Your task to perform on an android device: Search for seafood restaurants on Google Maps Image 0: 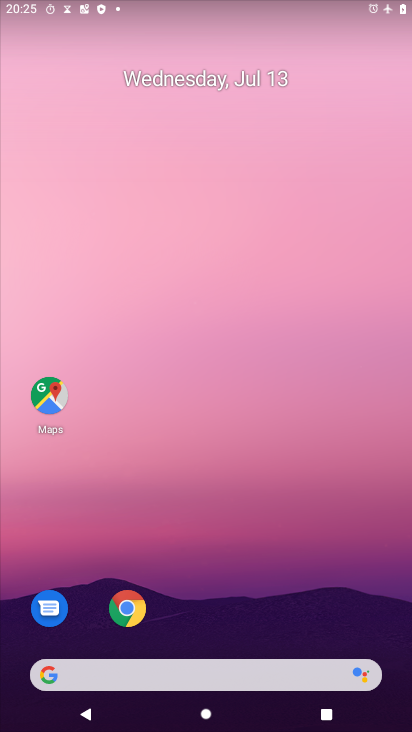
Step 0: click (61, 409)
Your task to perform on an android device: Search for seafood restaurants on Google Maps Image 1: 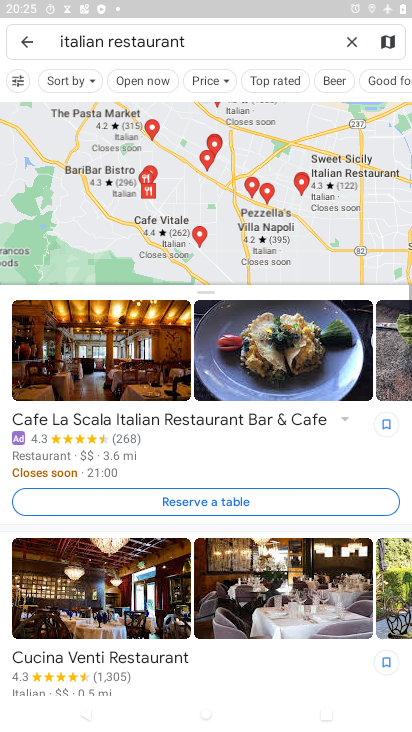
Step 1: click (28, 38)
Your task to perform on an android device: Search for seafood restaurants on Google Maps Image 2: 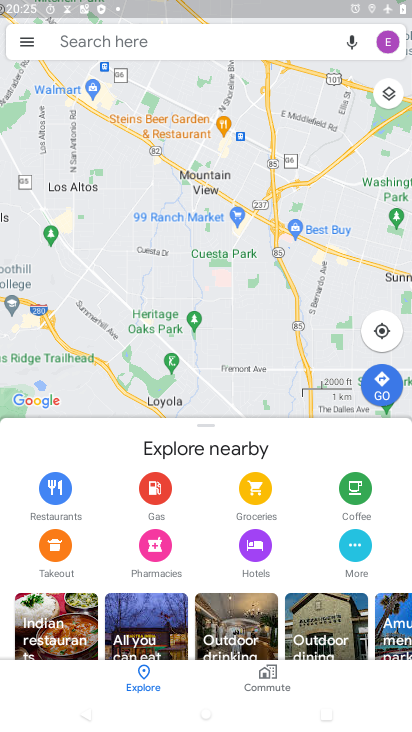
Step 2: click (214, 44)
Your task to perform on an android device: Search for seafood restaurants on Google Maps Image 3: 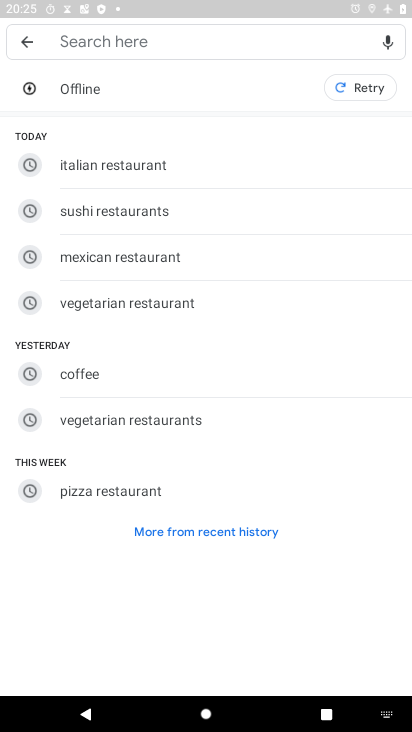
Step 3: type "seafood restaurants"
Your task to perform on an android device: Search for seafood restaurants on Google Maps Image 4: 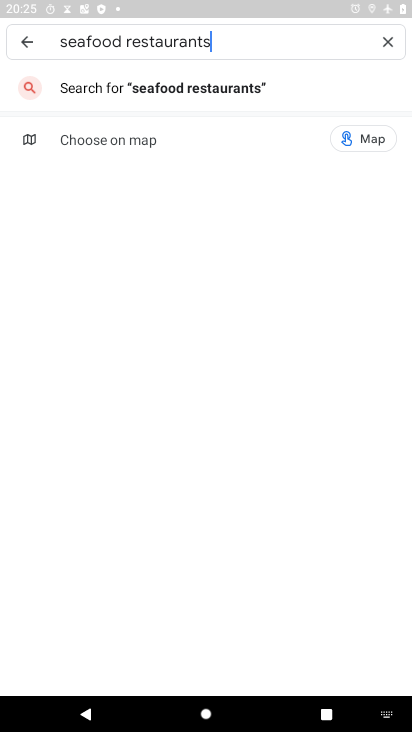
Step 4: type ""
Your task to perform on an android device: Search for seafood restaurants on Google Maps Image 5: 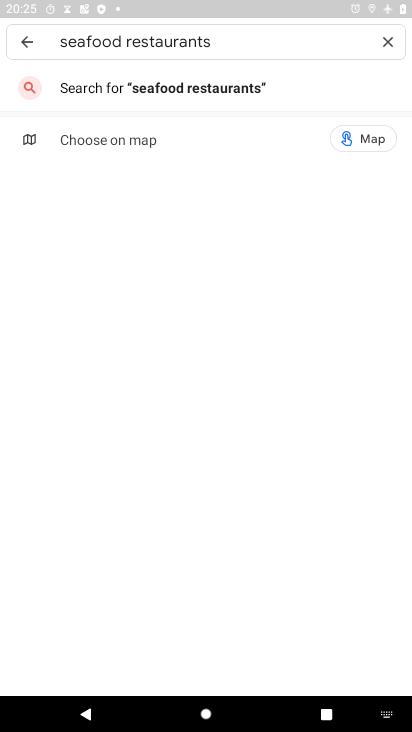
Step 5: click (138, 74)
Your task to perform on an android device: Search for seafood restaurants on Google Maps Image 6: 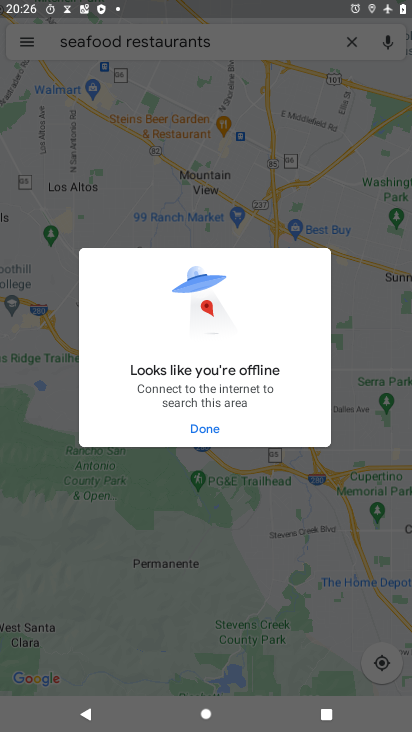
Step 6: task complete